Your task to perform on an android device: delete a single message in the gmail app Image 0: 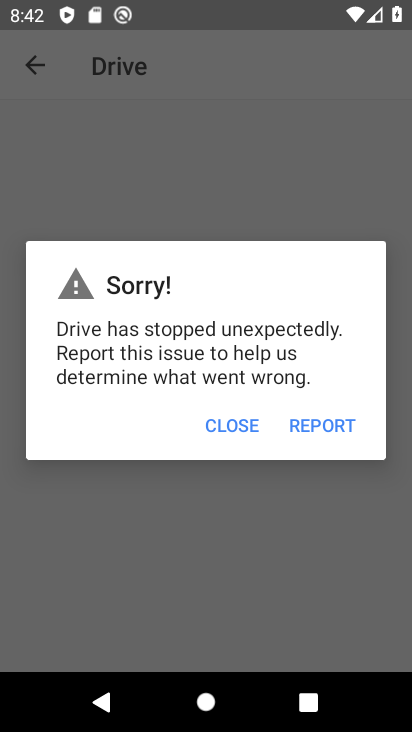
Step 0: press home button
Your task to perform on an android device: delete a single message in the gmail app Image 1: 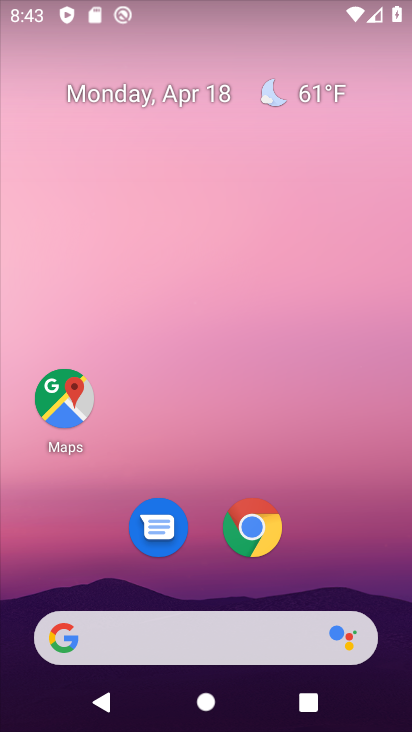
Step 1: click (355, 18)
Your task to perform on an android device: delete a single message in the gmail app Image 2: 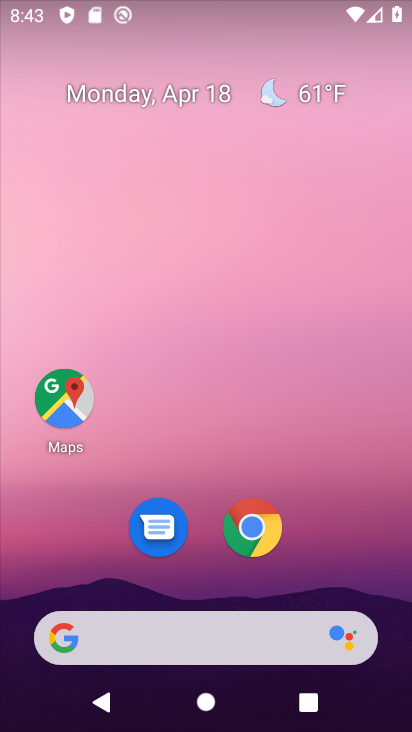
Step 2: drag from (356, 521) to (331, 73)
Your task to perform on an android device: delete a single message in the gmail app Image 3: 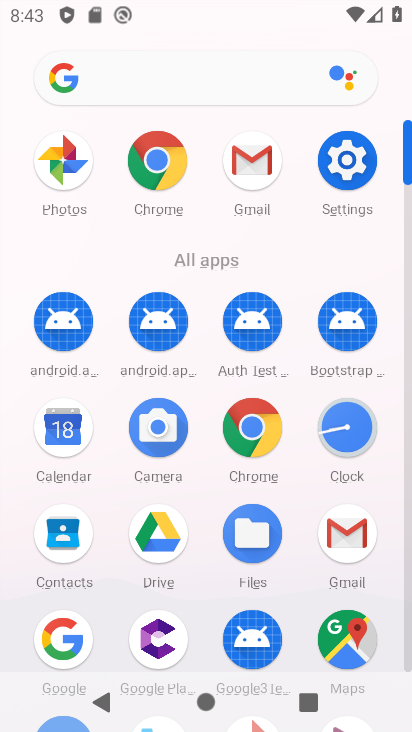
Step 3: click (246, 171)
Your task to perform on an android device: delete a single message in the gmail app Image 4: 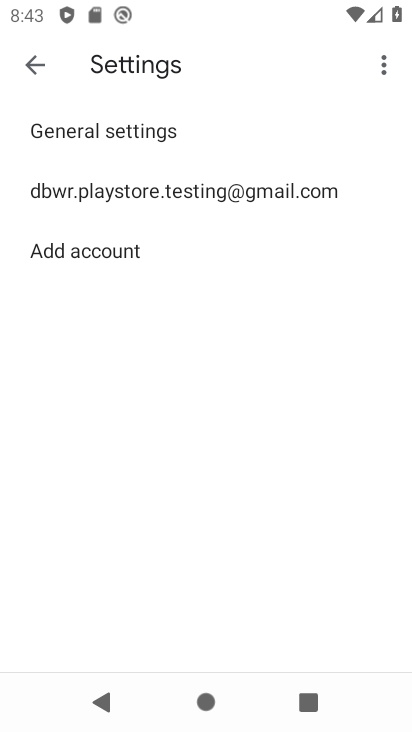
Step 4: click (39, 67)
Your task to perform on an android device: delete a single message in the gmail app Image 5: 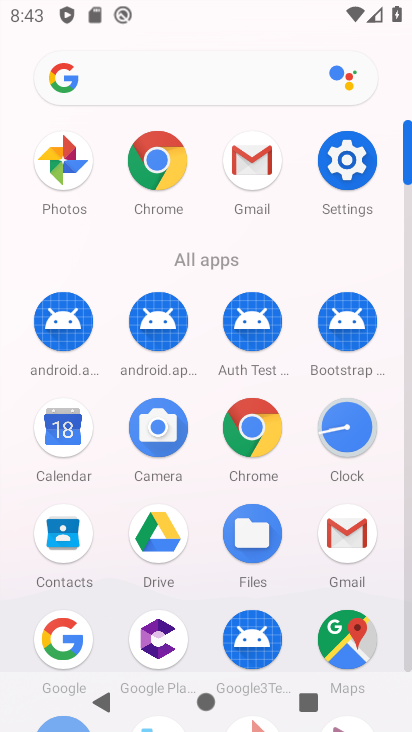
Step 5: click (248, 178)
Your task to perform on an android device: delete a single message in the gmail app Image 6: 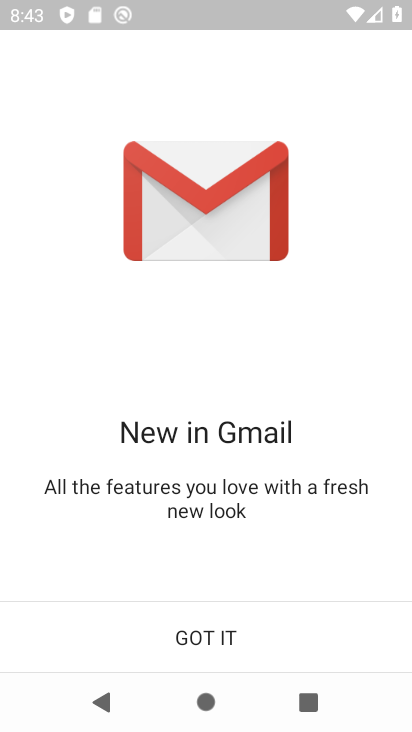
Step 6: click (187, 625)
Your task to perform on an android device: delete a single message in the gmail app Image 7: 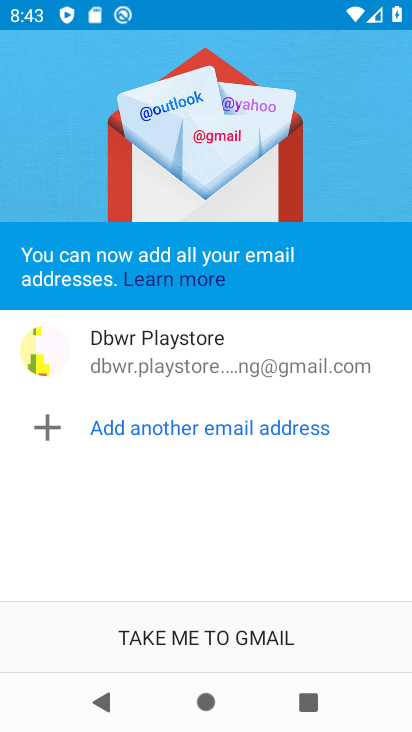
Step 7: click (201, 627)
Your task to perform on an android device: delete a single message in the gmail app Image 8: 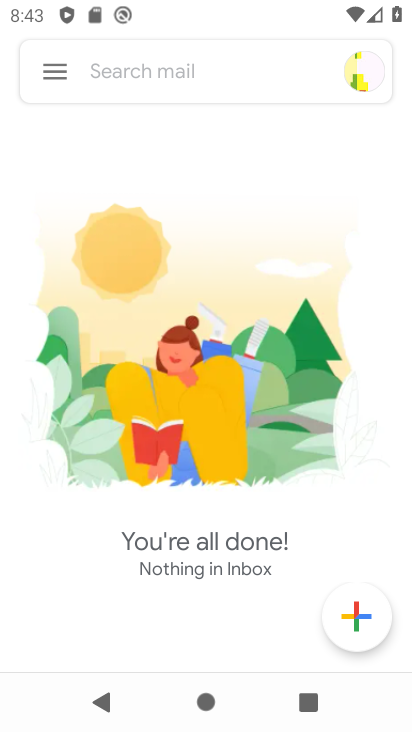
Step 8: click (62, 70)
Your task to perform on an android device: delete a single message in the gmail app Image 9: 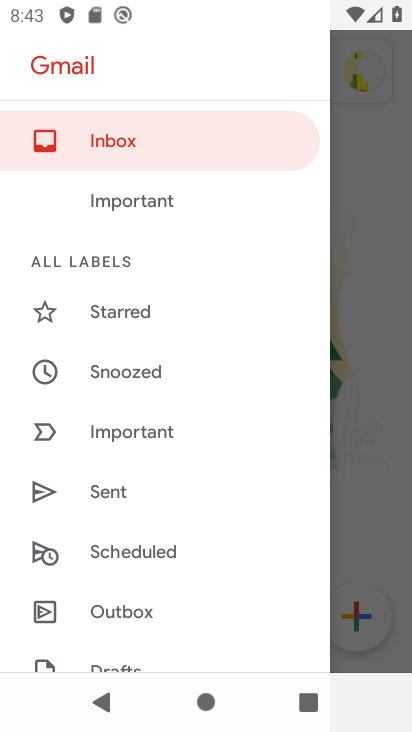
Step 9: drag from (190, 486) to (167, 247)
Your task to perform on an android device: delete a single message in the gmail app Image 10: 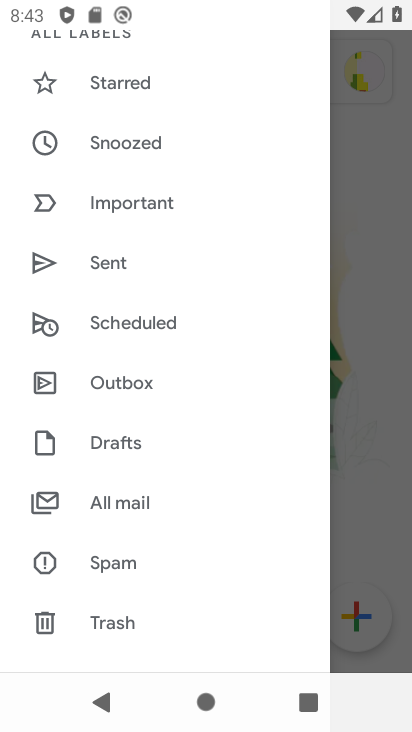
Step 10: click (118, 501)
Your task to perform on an android device: delete a single message in the gmail app Image 11: 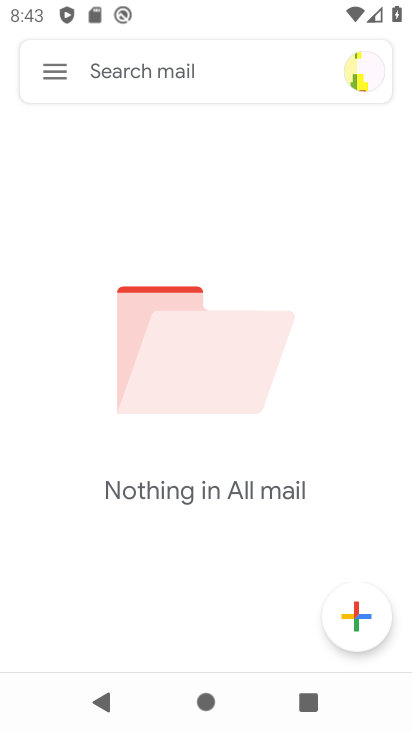
Step 11: task complete